Your task to perform on an android device: turn on improve location accuracy Image 0: 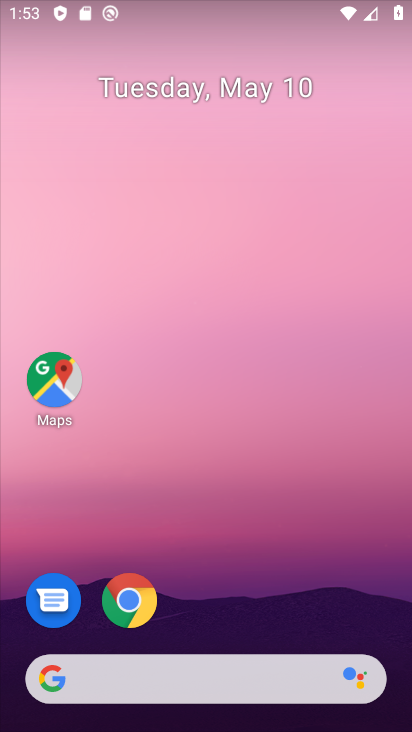
Step 0: drag from (178, 682) to (202, 271)
Your task to perform on an android device: turn on improve location accuracy Image 1: 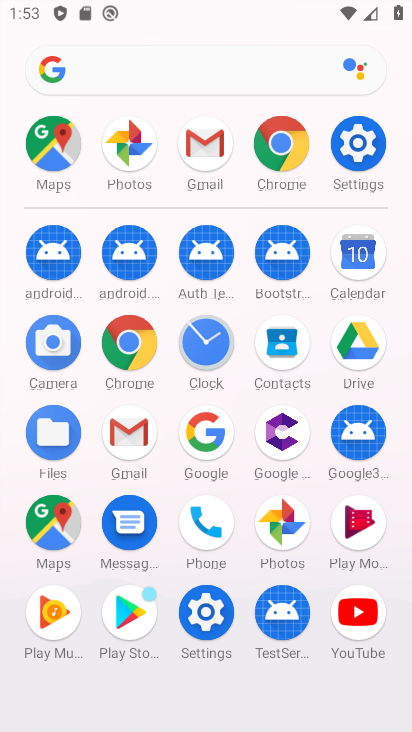
Step 1: click (381, 148)
Your task to perform on an android device: turn on improve location accuracy Image 2: 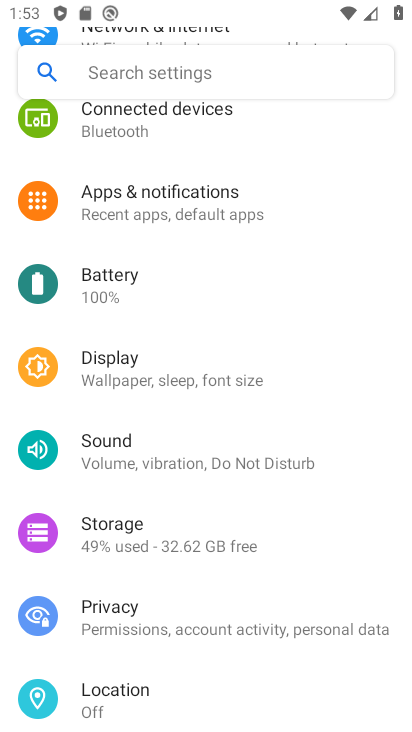
Step 2: drag from (181, 283) to (113, 570)
Your task to perform on an android device: turn on improve location accuracy Image 3: 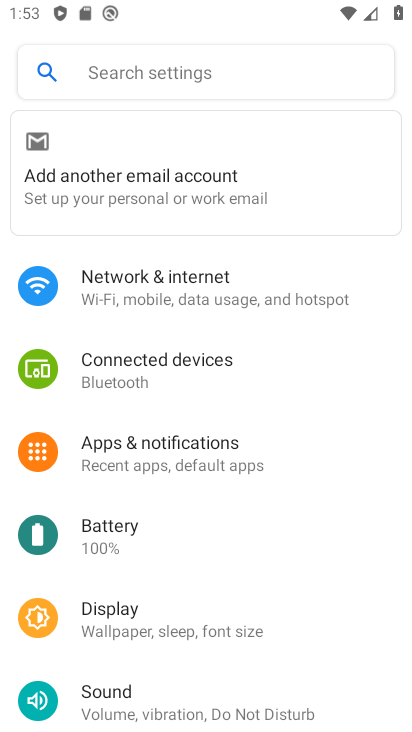
Step 3: drag from (164, 529) to (254, 156)
Your task to perform on an android device: turn on improve location accuracy Image 4: 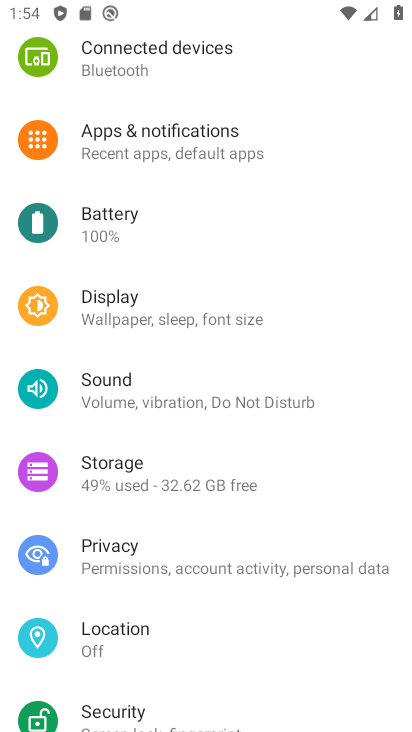
Step 4: click (157, 631)
Your task to perform on an android device: turn on improve location accuracy Image 5: 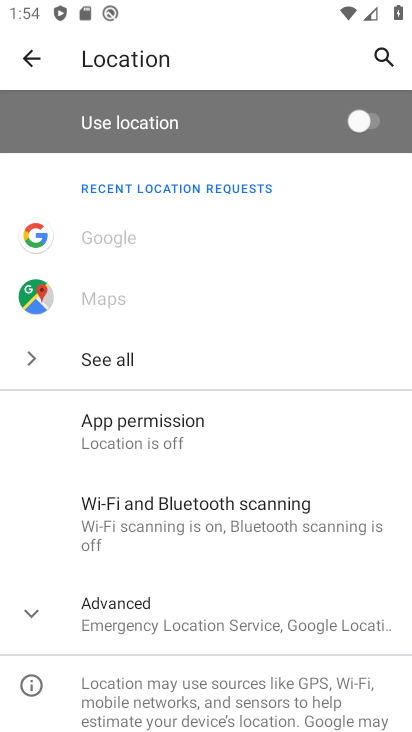
Step 5: drag from (235, 564) to (271, 296)
Your task to perform on an android device: turn on improve location accuracy Image 6: 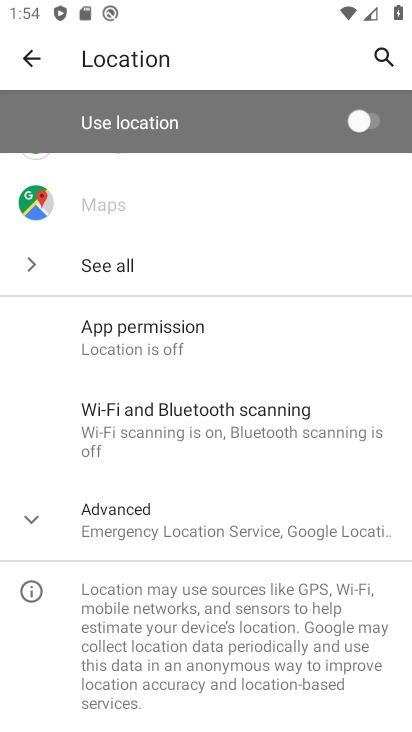
Step 6: click (178, 519)
Your task to perform on an android device: turn on improve location accuracy Image 7: 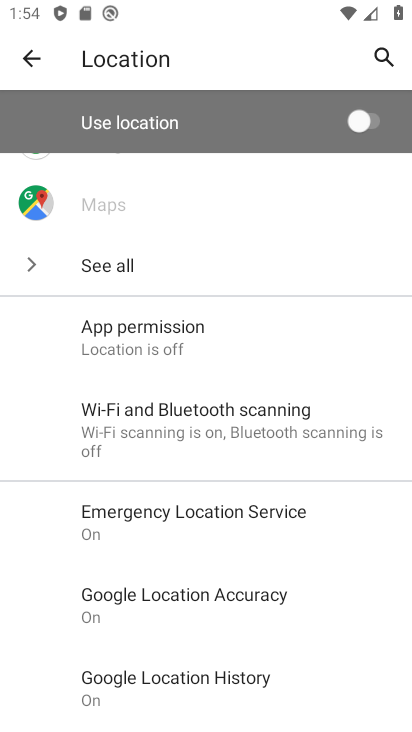
Step 7: click (212, 606)
Your task to perform on an android device: turn on improve location accuracy Image 8: 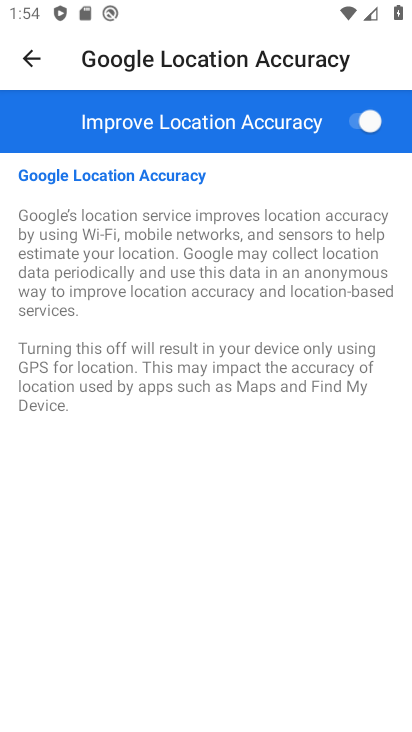
Step 8: task complete